Your task to perform on an android device: turn off location history Image 0: 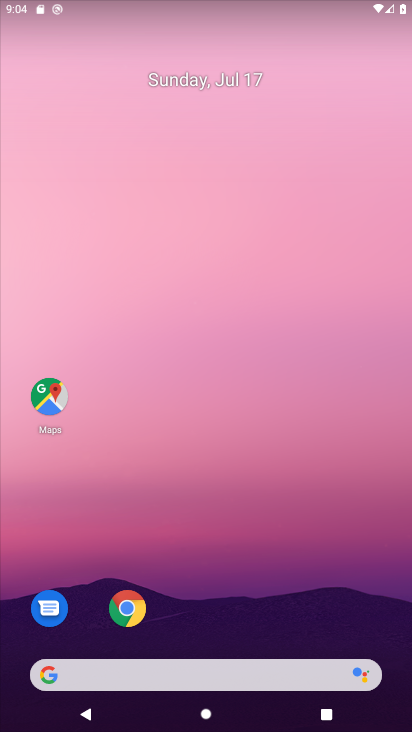
Step 0: drag from (185, 648) to (309, 0)
Your task to perform on an android device: turn off location history Image 1: 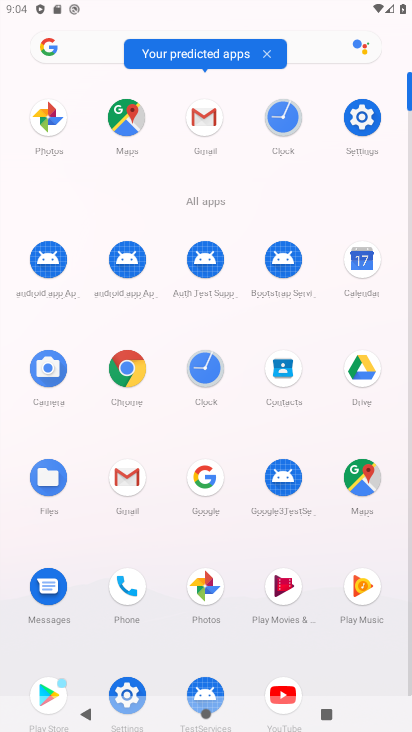
Step 1: click (124, 685)
Your task to perform on an android device: turn off location history Image 2: 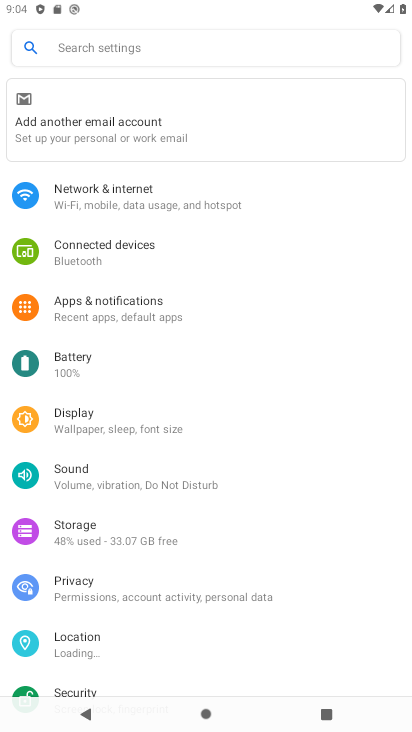
Step 2: click (114, 649)
Your task to perform on an android device: turn off location history Image 3: 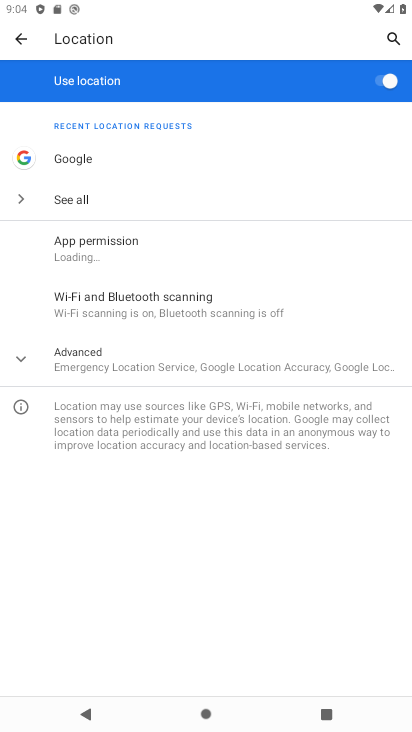
Step 3: click (143, 363)
Your task to perform on an android device: turn off location history Image 4: 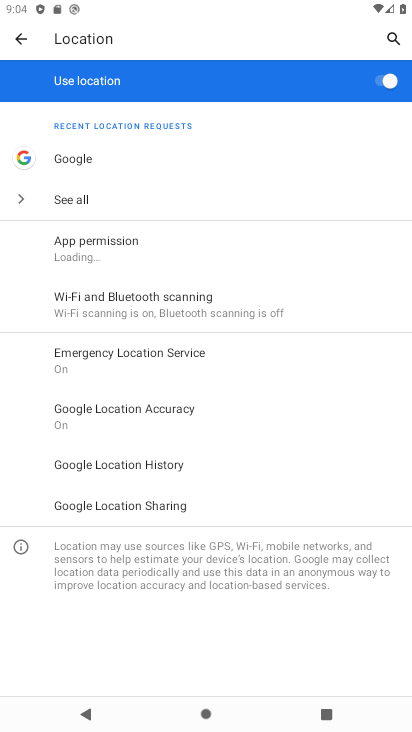
Step 4: click (167, 471)
Your task to perform on an android device: turn off location history Image 5: 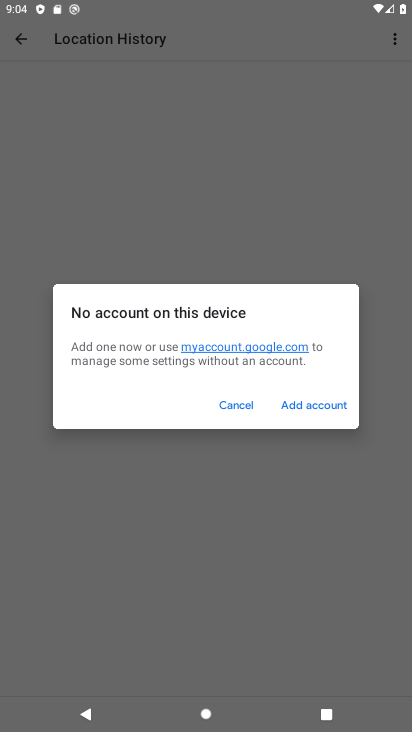
Step 5: click (239, 409)
Your task to perform on an android device: turn off location history Image 6: 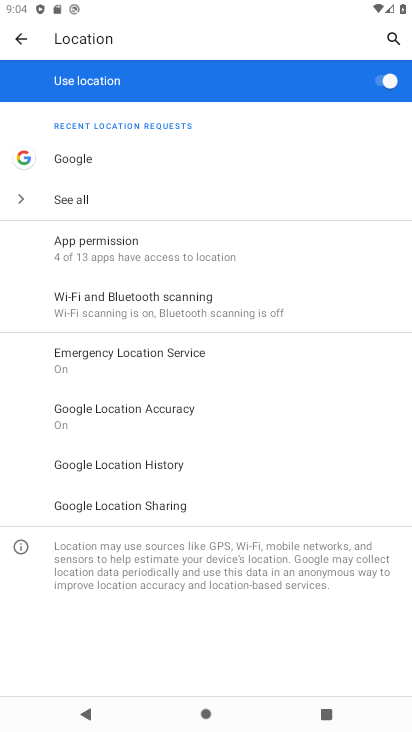
Step 6: task complete